Your task to perform on an android device: What is the news today? Image 0: 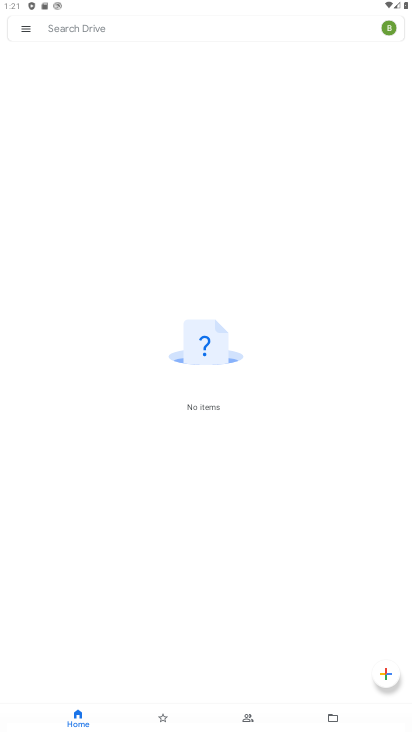
Step 0: press home button
Your task to perform on an android device: What is the news today? Image 1: 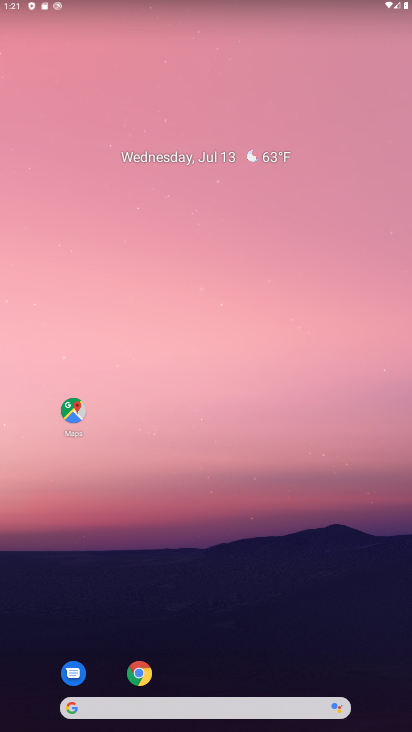
Step 1: drag from (230, 653) to (133, 232)
Your task to perform on an android device: What is the news today? Image 2: 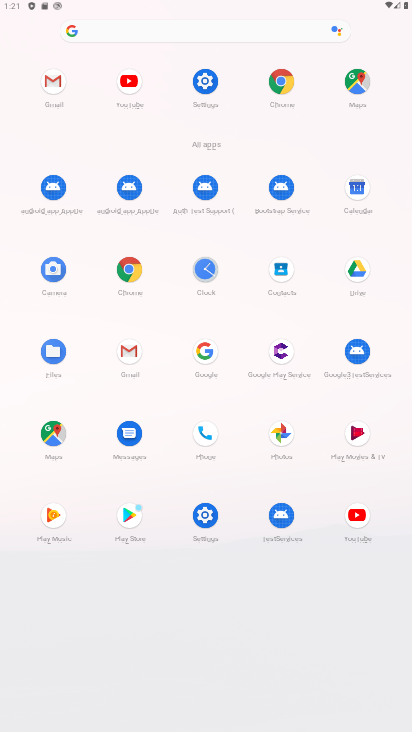
Step 2: click (283, 78)
Your task to perform on an android device: What is the news today? Image 3: 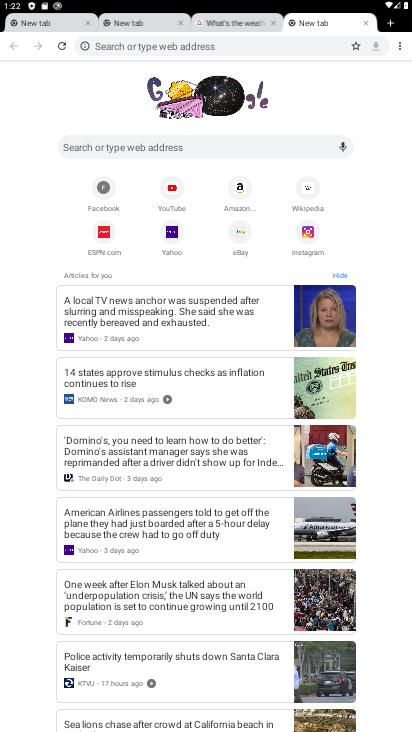
Step 3: click (144, 145)
Your task to perform on an android device: What is the news today? Image 4: 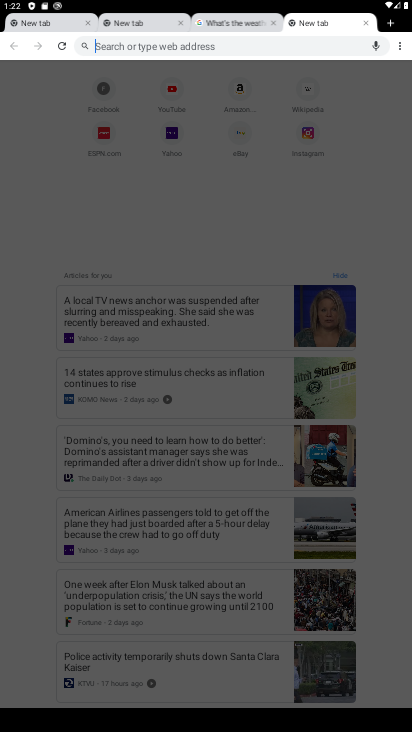
Step 4: type "What is the news today "
Your task to perform on an android device: What is the news today? Image 5: 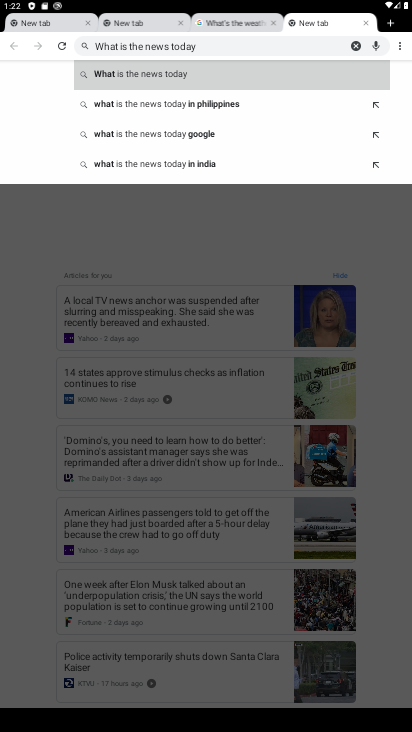
Step 5: click (106, 70)
Your task to perform on an android device: What is the news today? Image 6: 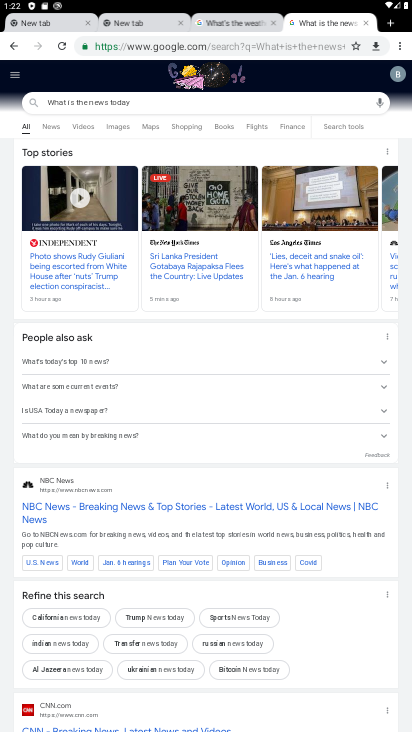
Step 6: task complete